Your task to perform on an android device: turn off improve location accuracy Image 0: 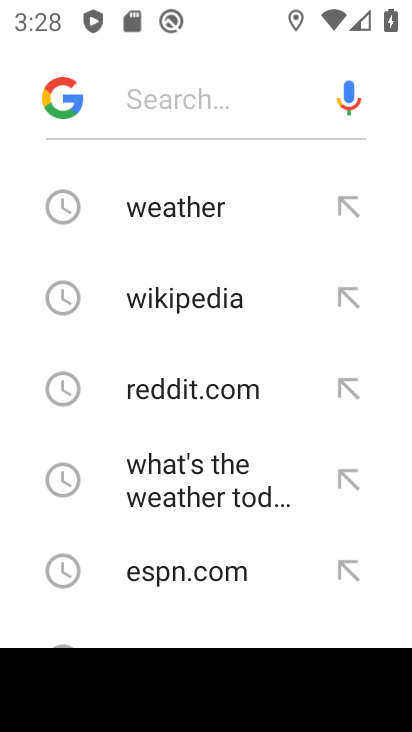
Step 0: press home button
Your task to perform on an android device: turn off improve location accuracy Image 1: 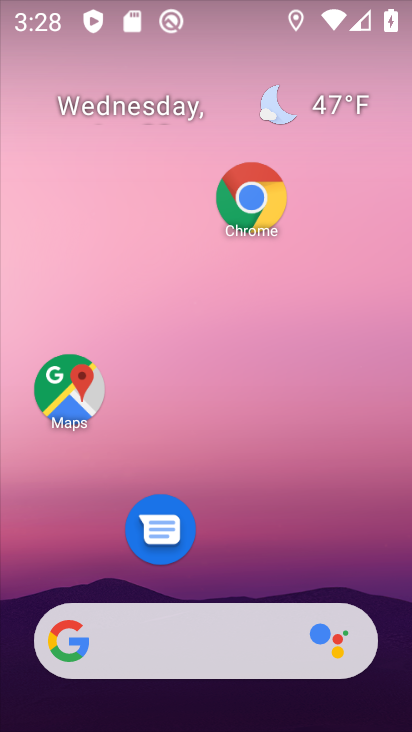
Step 1: drag from (246, 408) to (192, 71)
Your task to perform on an android device: turn off improve location accuracy Image 2: 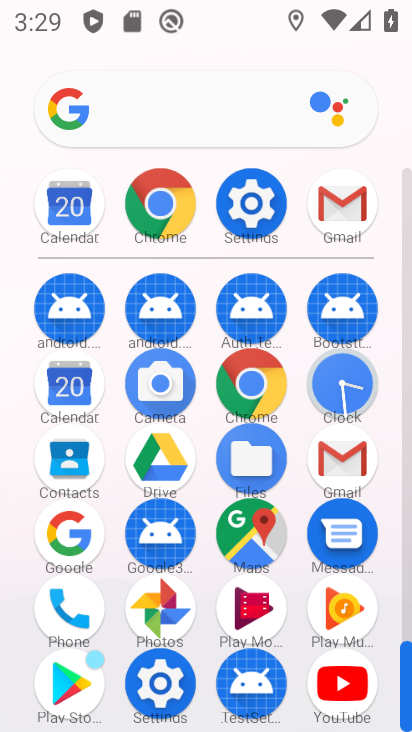
Step 2: click (251, 204)
Your task to perform on an android device: turn off improve location accuracy Image 3: 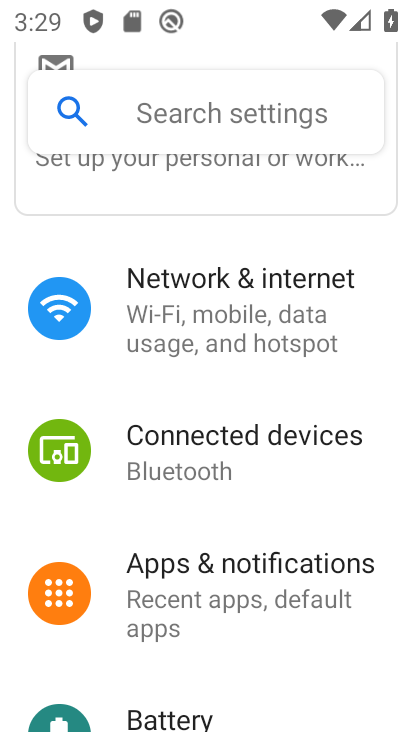
Step 3: drag from (241, 696) to (254, 221)
Your task to perform on an android device: turn off improve location accuracy Image 4: 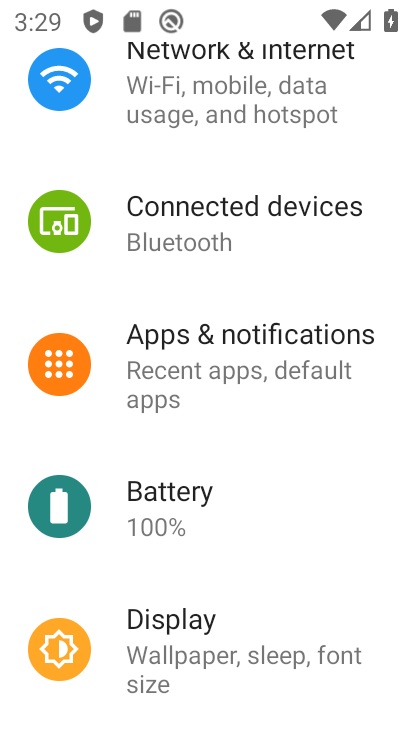
Step 4: drag from (236, 643) to (240, 241)
Your task to perform on an android device: turn off improve location accuracy Image 5: 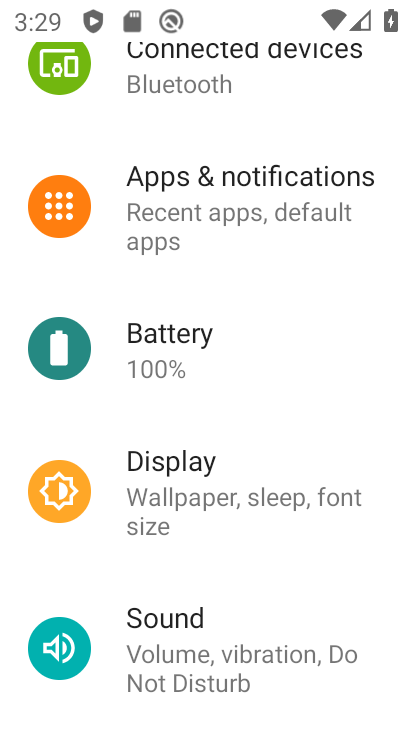
Step 5: drag from (287, 683) to (303, 174)
Your task to perform on an android device: turn off improve location accuracy Image 6: 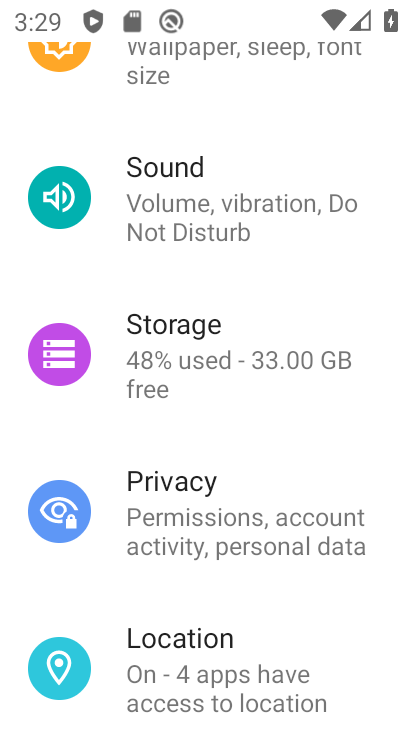
Step 6: click (264, 673)
Your task to perform on an android device: turn off improve location accuracy Image 7: 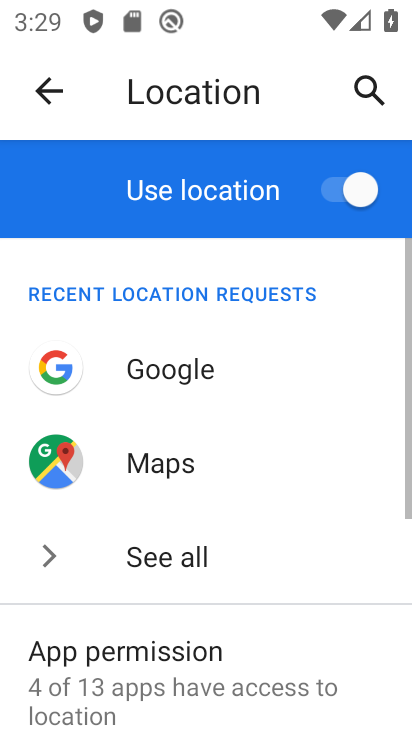
Step 7: drag from (233, 623) to (246, 260)
Your task to perform on an android device: turn off improve location accuracy Image 8: 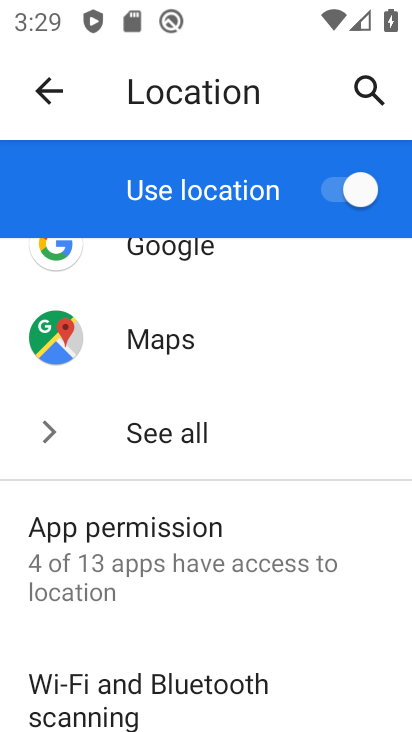
Step 8: drag from (237, 664) to (243, 339)
Your task to perform on an android device: turn off improve location accuracy Image 9: 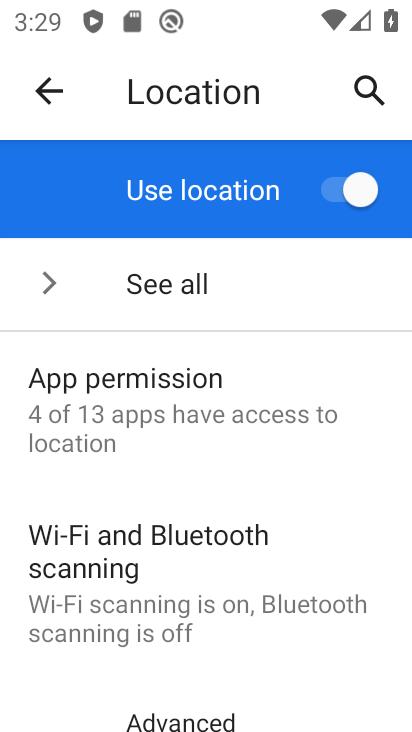
Step 9: drag from (220, 662) to (241, 367)
Your task to perform on an android device: turn off improve location accuracy Image 10: 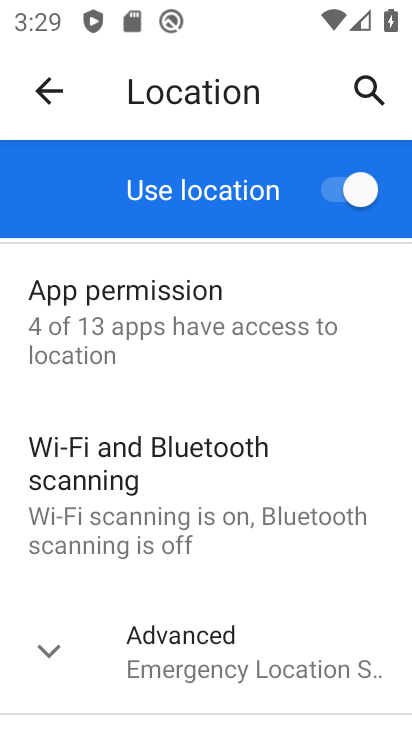
Step 10: click (223, 631)
Your task to perform on an android device: turn off improve location accuracy Image 11: 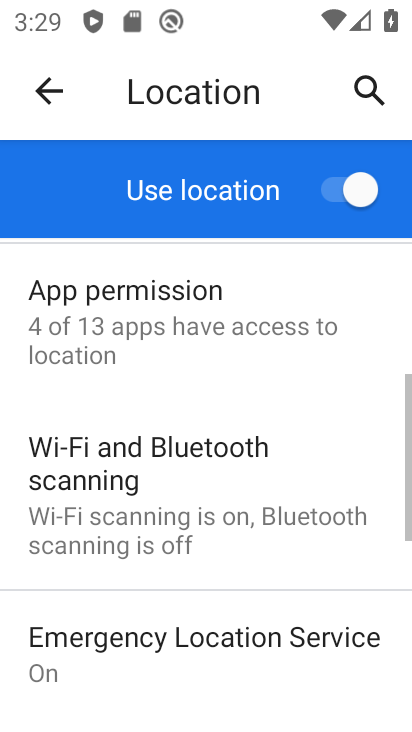
Step 11: drag from (227, 609) to (213, 250)
Your task to perform on an android device: turn off improve location accuracy Image 12: 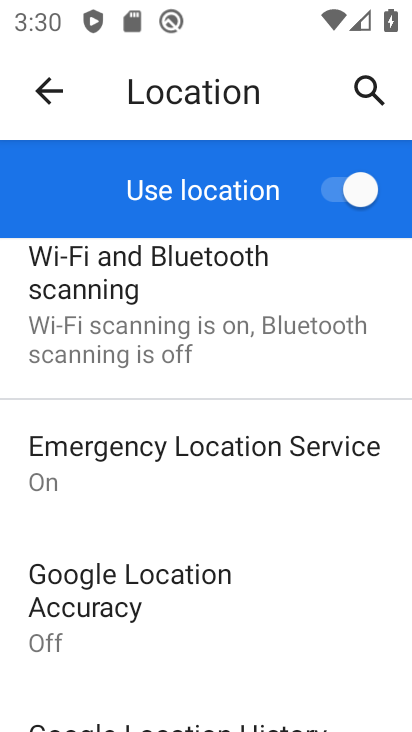
Step 12: click (180, 601)
Your task to perform on an android device: turn off improve location accuracy Image 13: 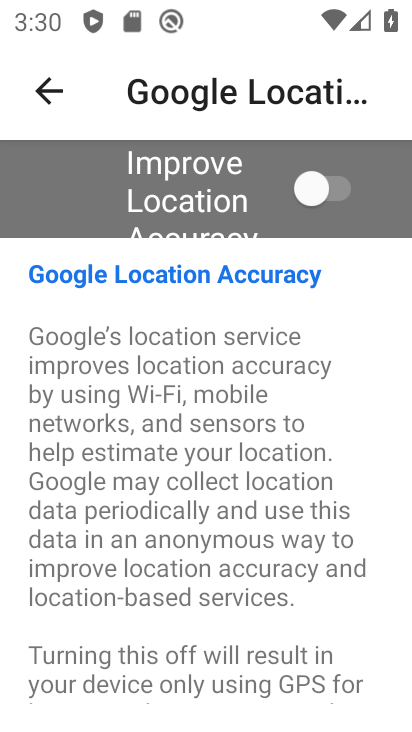
Step 13: task complete